Your task to perform on an android device: Do I have any events tomorrow? Image 0: 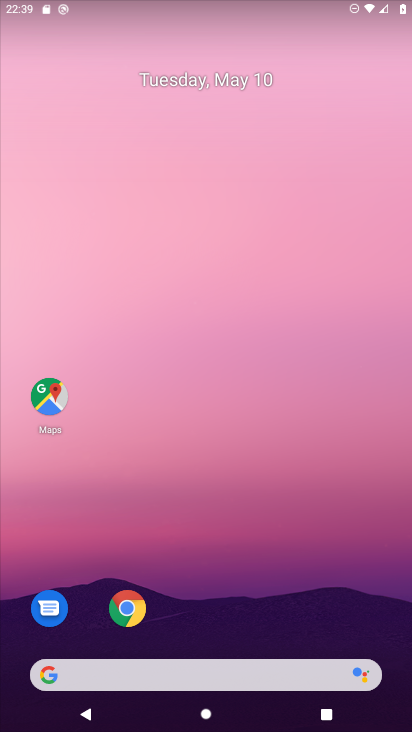
Step 0: drag from (201, 588) to (227, 155)
Your task to perform on an android device: Do I have any events tomorrow? Image 1: 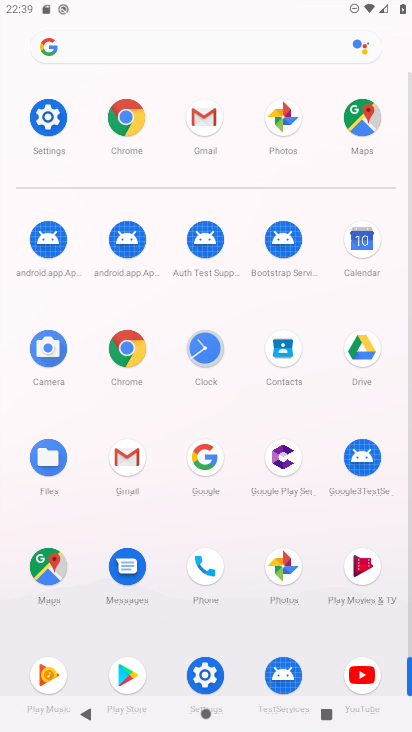
Step 1: click (357, 242)
Your task to perform on an android device: Do I have any events tomorrow? Image 2: 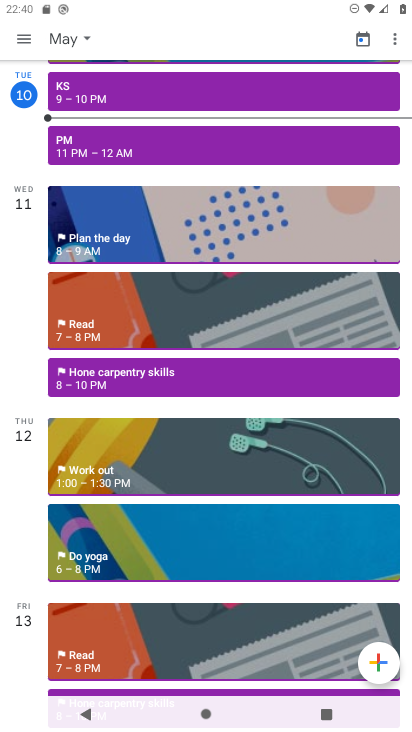
Step 2: task complete